Your task to perform on an android device: change the upload size in google photos Image 0: 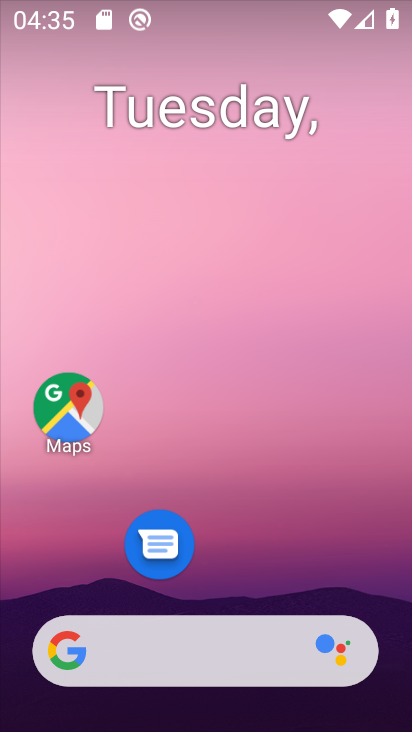
Step 0: drag from (256, 586) to (279, 82)
Your task to perform on an android device: change the upload size in google photos Image 1: 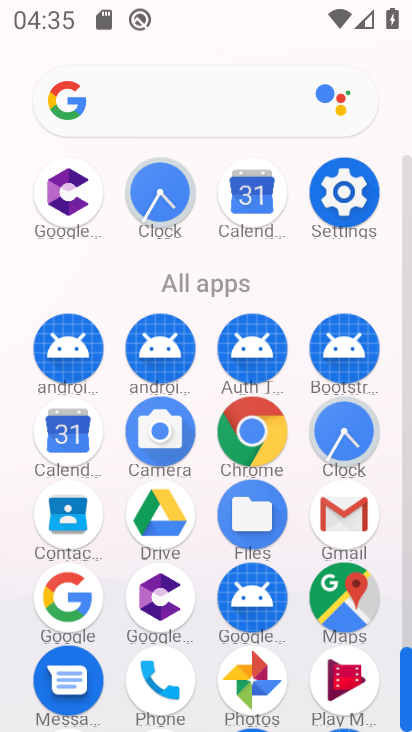
Step 1: click (249, 688)
Your task to perform on an android device: change the upload size in google photos Image 2: 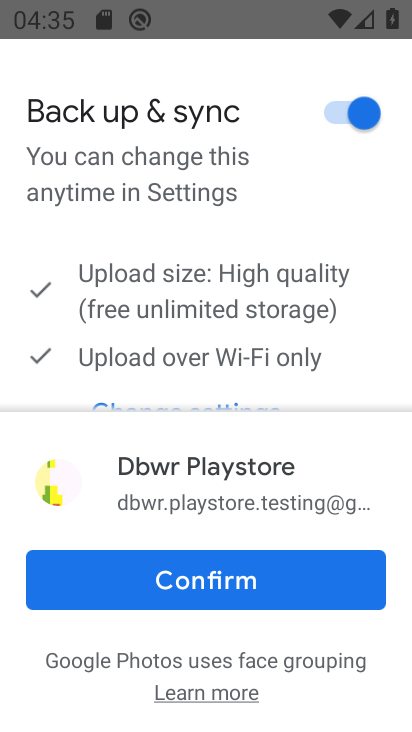
Step 2: click (169, 586)
Your task to perform on an android device: change the upload size in google photos Image 3: 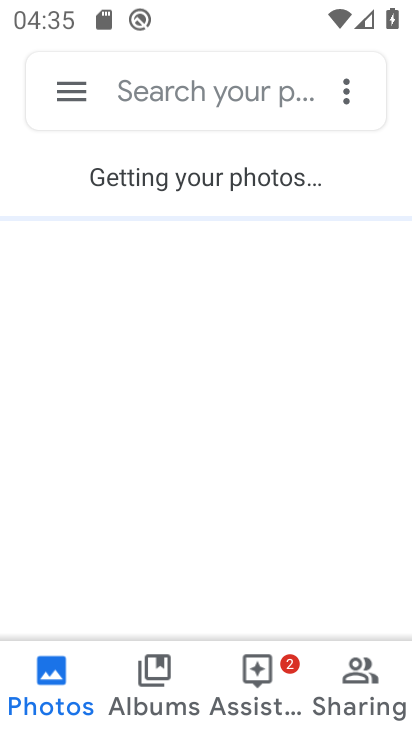
Step 3: click (64, 88)
Your task to perform on an android device: change the upload size in google photos Image 4: 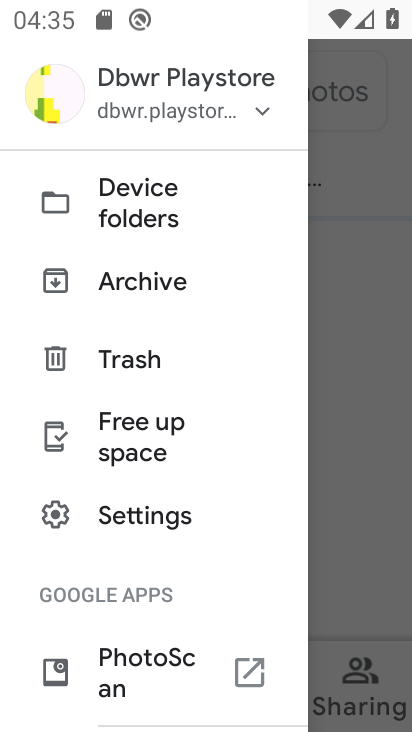
Step 4: click (128, 534)
Your task to perform on an android device: change the upload size in google photos Image 5: 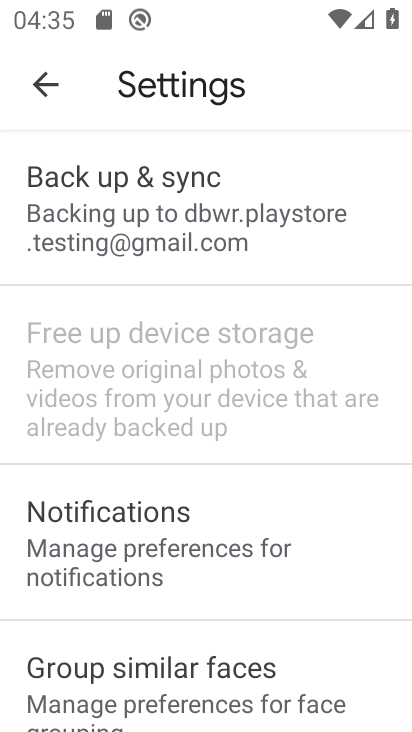
Step 5: click (41, 90)
Your task to perform on an android device: change the upload size in google photos Image 6: 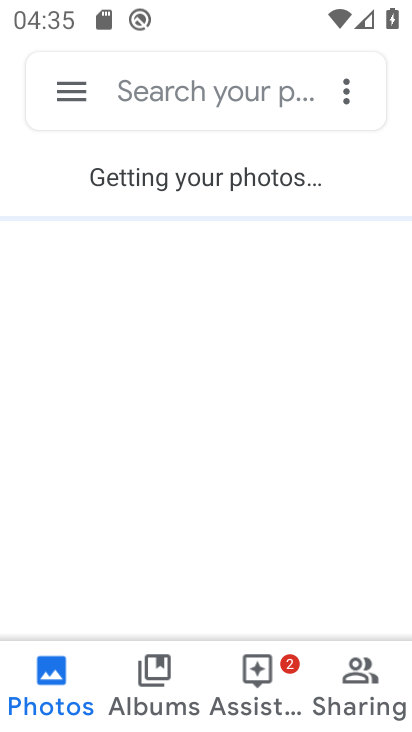
Step 6: click (81, 89)
Your task to perform on an android device: change the upload size in google photos Image 7: 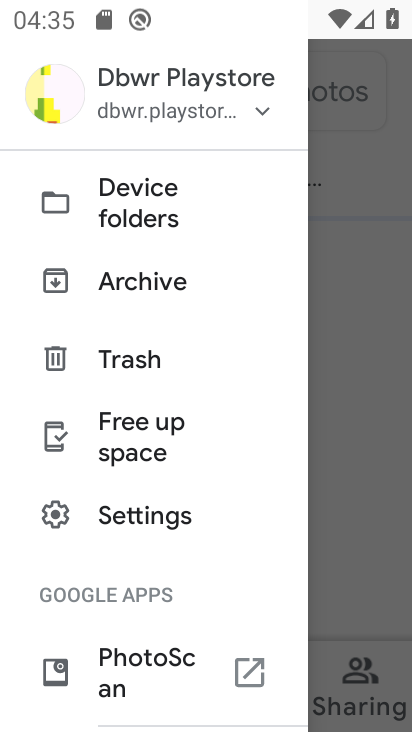
Step 7: click (141, 530)
Your task to perform on an android device: change the upload size in google photos Image 8: 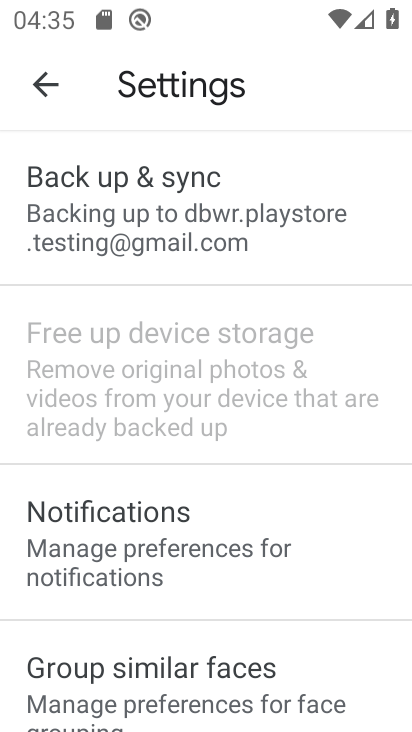
Step 8: click (197, 194)
Your task to perform on an android device: change the upload size in google photos Image 9: 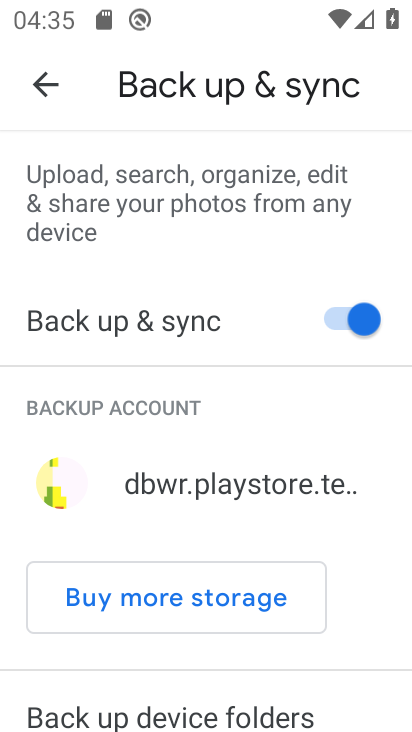
Step 9: drag from (194, 545) to (233, 167)
Your task to perform on an android device: change the upload size in google photos Image 10: 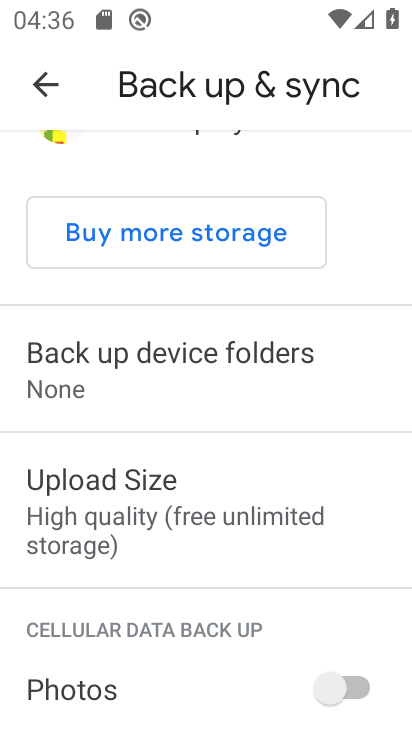
Step 10: click (147, 528)
Your task to perform on an android device: change the upload size in google photos Image 11: 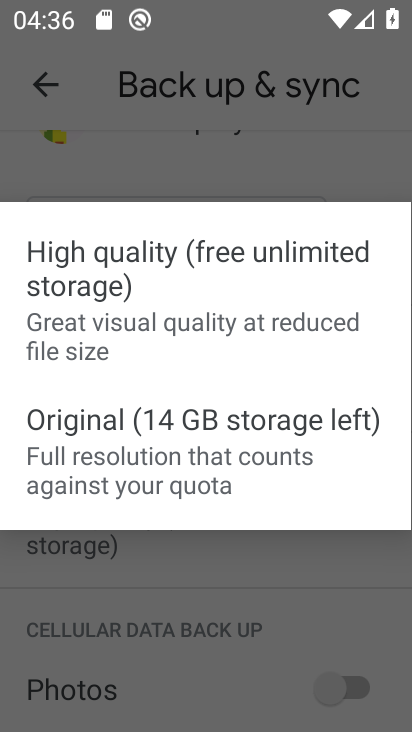
Step 11: click (142, 439)
Your task to perform on an android device: change the upload size in google photos Image 12: 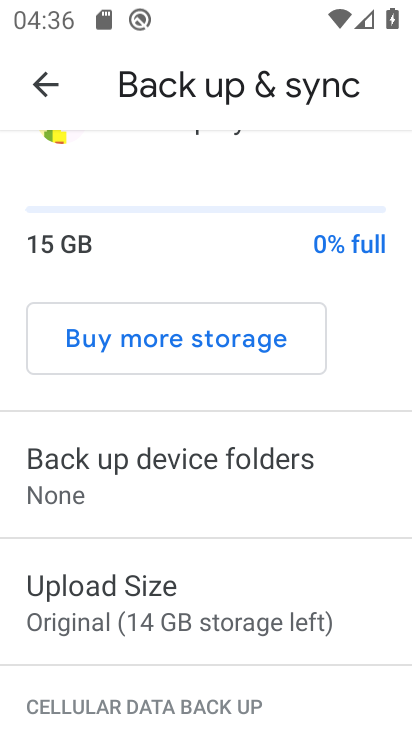
Step 12: task complete